Your task to perform on an android device: Open Yahoo.com Image 0: 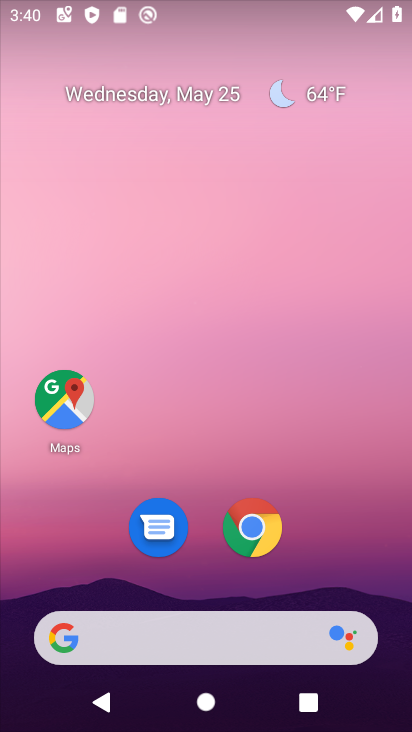
Step 0: click (268, 530)
Your task to perform on an android device: Open Yahoo.com Image 1: 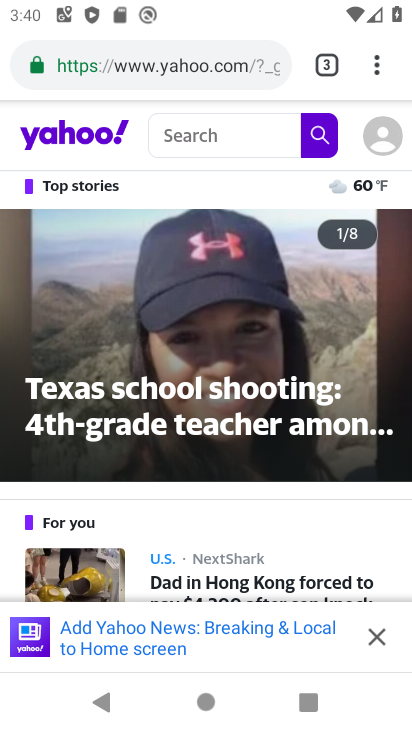
Step 1: task complete